Your task to perform on an android device: Is it going to rain today? Image 0: 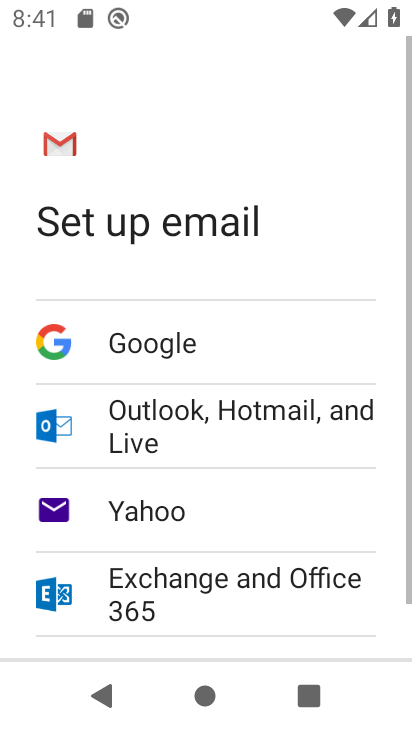
Step 0: press home button
Your task to perform on an android device: Is it going to rain today? Image 1: 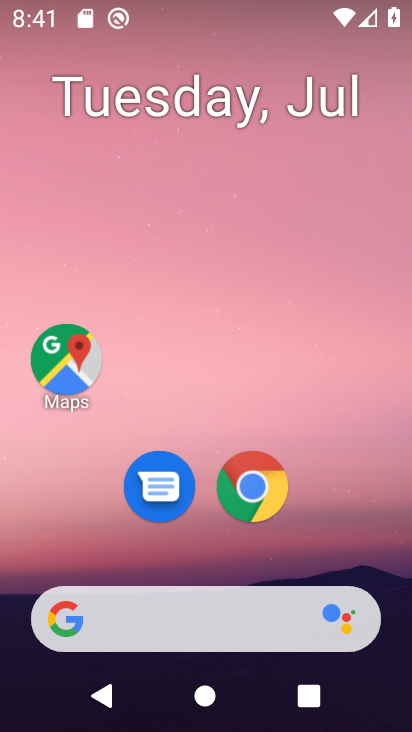
Step 1: drag from (190, 629) to (267, 71)
Your task to perform on an android device: Is it going to rain today? Image 2: 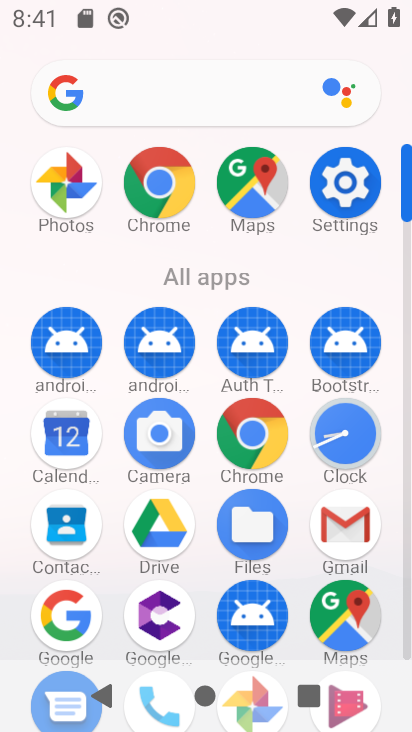
Step 2: drag from (251, 574) to (215, 129)
Your task to perform on an android device: Is it going to rain today? Image 3: 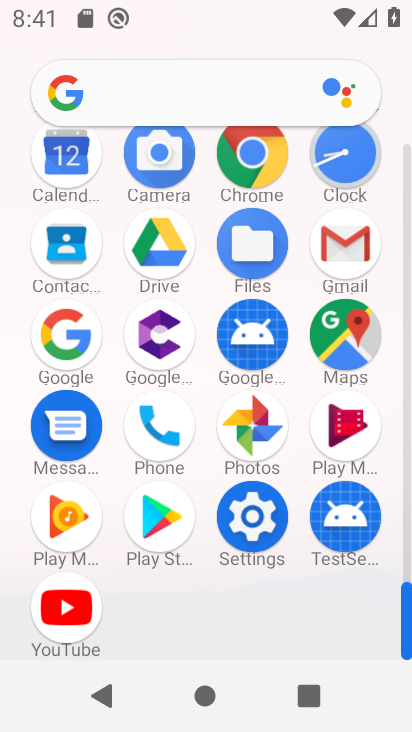
Step 3: click (77, 343)
Your task to perform on an android device: Is it going to rain today? Image 4: 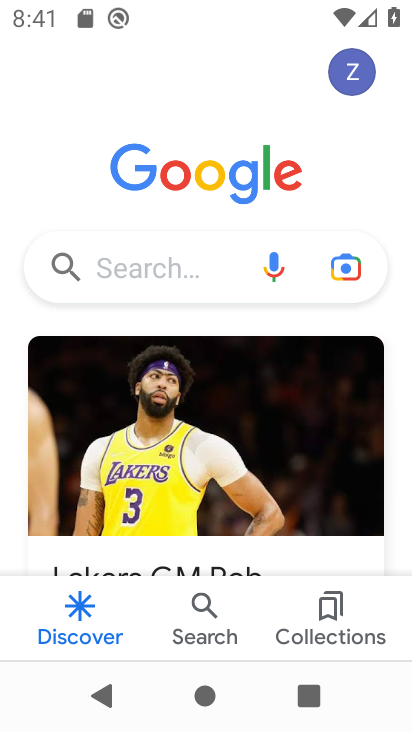
Step 4: click (152, 302)
Your task to perform on an android device: Is it going to rain today? Image 5: 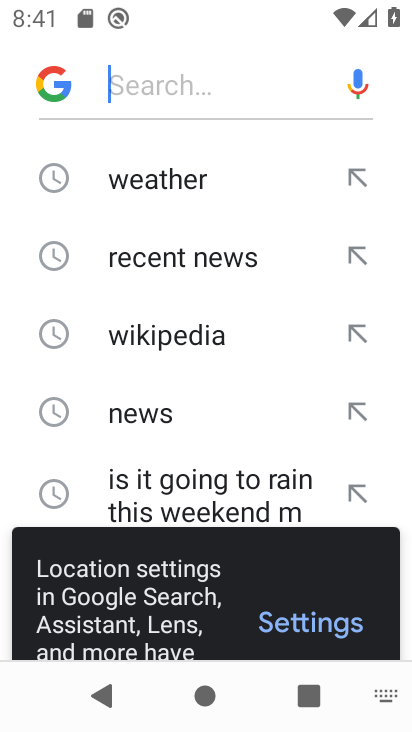
Step 5: click (178, 177)
Your task to perform on an android device: Is it going to rain today? Image 6: 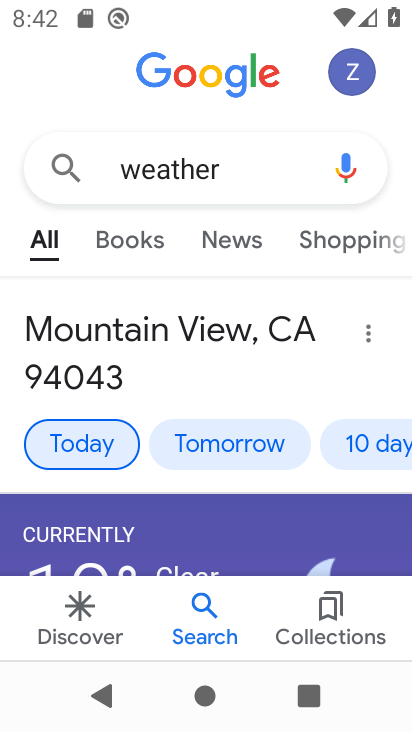
Step 6: task complete